Your task to perform on an android device: toggle translation in the chrome app Image 0: 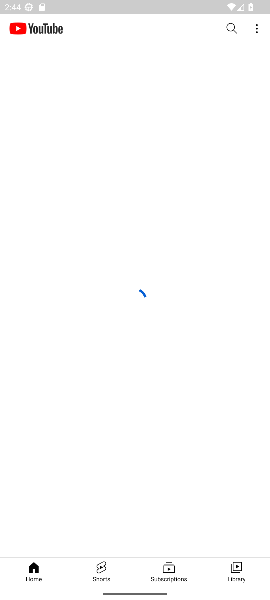
Step 0: press home button
Your task to perform on an android device: toggle translation in the chrome app Image 1: 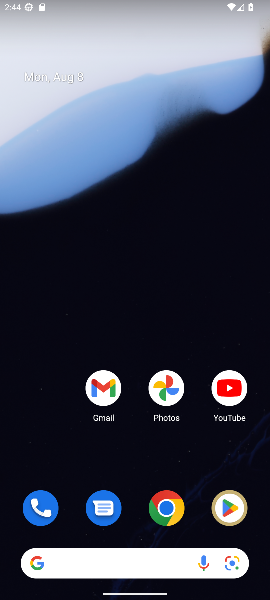
Step 1: click (167, 509)
Your task to perform on an android device: toggle translation in the chrome app Image 2: 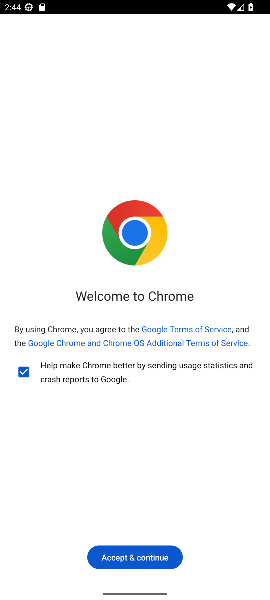
Step 2: click (142, 559)
Your task to perform on an android device: toggle translation in the chrome app Image 3: 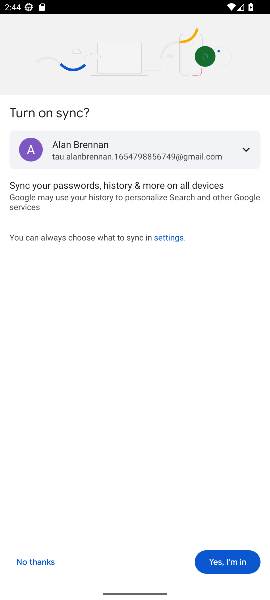
Step 3: click (35, 559)
Your task to perform on an android device: toggle translation in the chrome app Image 4: 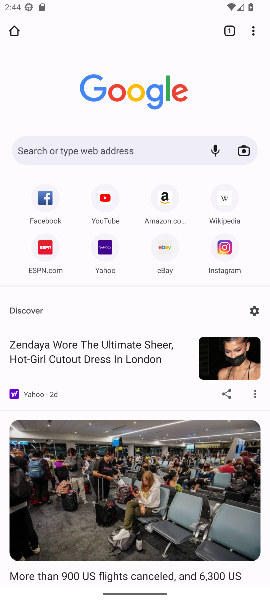
Step 4: click (254, 30)
Your task to perform on an android device: toggle translation in the chrome app Image 5: 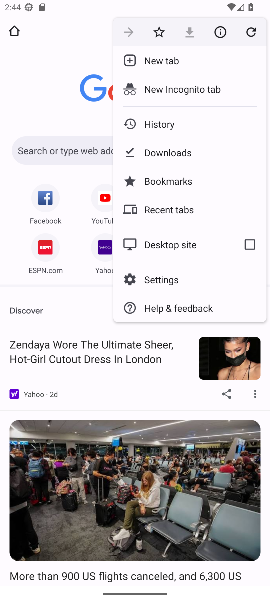
Step 5: click (156, 277)
Your task to perform on an android device: toggle translation in the chrome app Image 6: 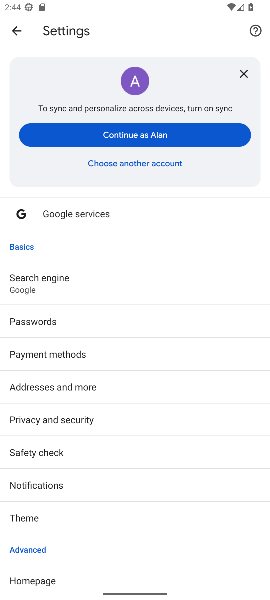
Step 6: drag from (135, 510) to (126, 286)
Your task to perform on an android device: toggle translation in the chrome app Image 7: 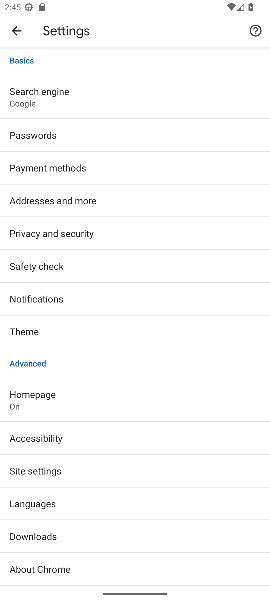
Step 7: click (37, 505)
Your task to perform on an android device: toggle translation in the chrome app Image 8: 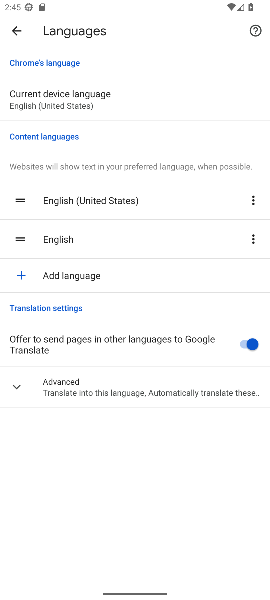
Step 8: click (251, 340)
Your task to perform on an android device: toggle translation in the chrome app Image 9: 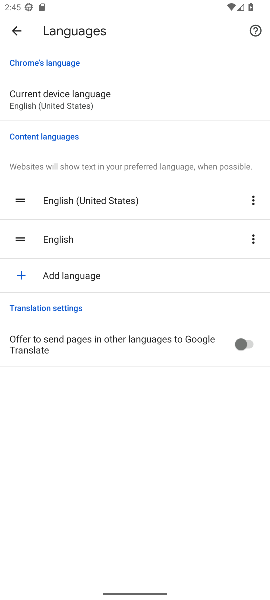
Step 9: task complete